Your task to perform on an android device: Go to battery settings Image 0: 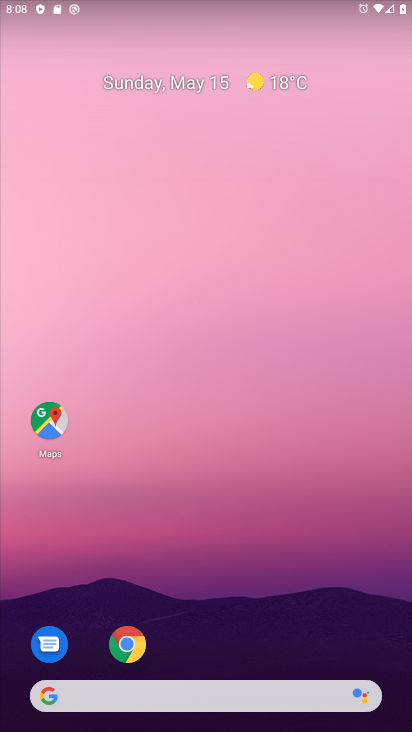
Step 0: drag from (183, 698) to (192, 393)
Your task to perform on an android device: Go to battery settings Image 1: 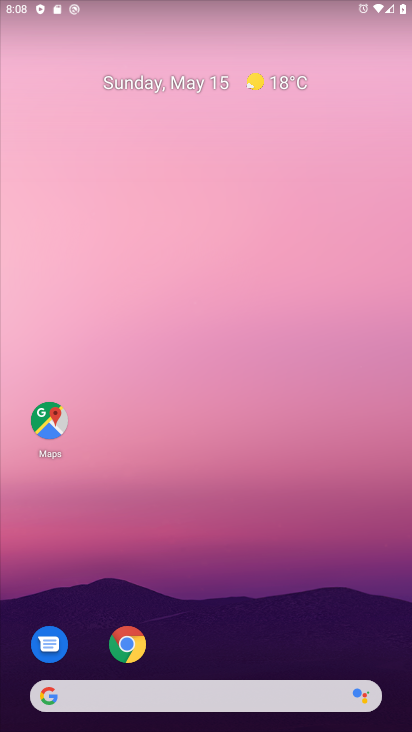
Step 1: drag from (194, 689) to (180, 298)
Your task to perform on an android device: Go to battery settings Image 2: 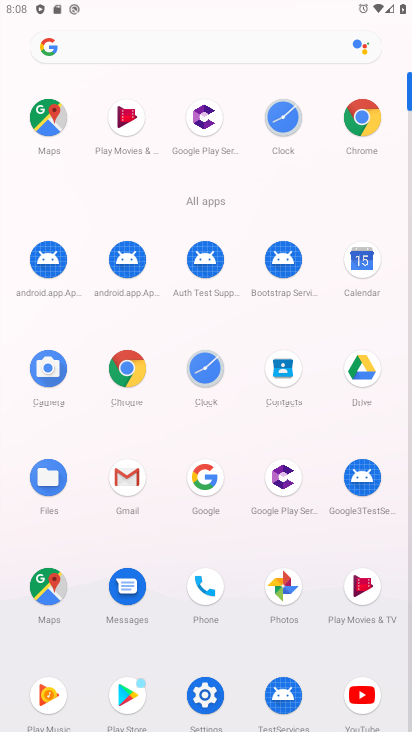
Step 2: click (192, 690)
Your task to perform on an android device: Go to battery settings Image 3: 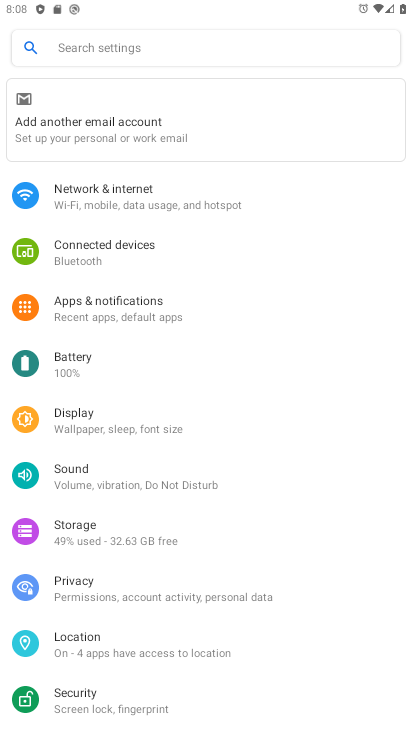
Step 3: click (81, 341)
Your task to perform on an android device: Go to battery settings Image 4: 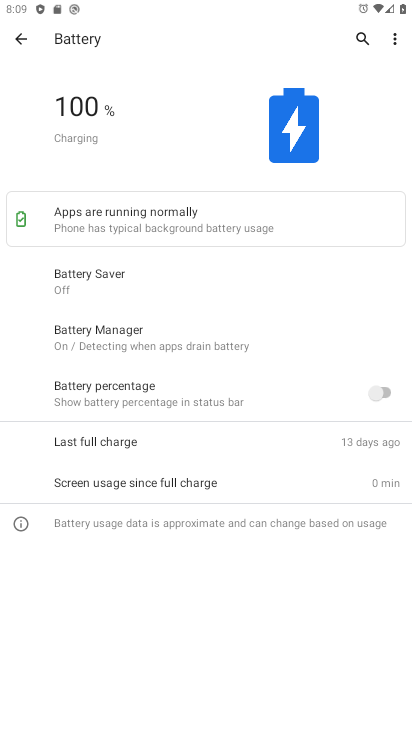
Step 4: task complete